Your task to perform on an android device: check android version Image 0: 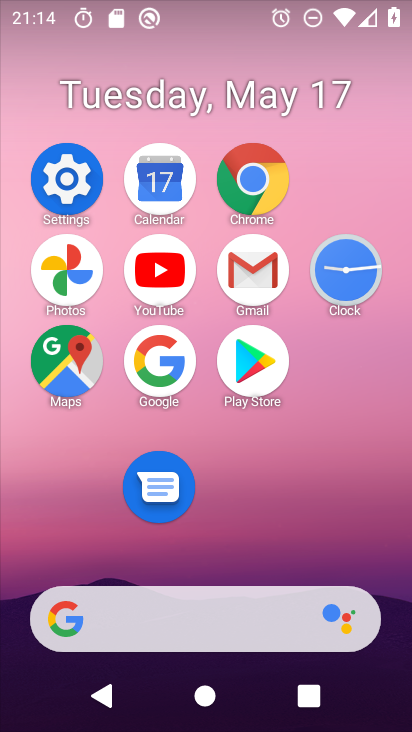
Step 0: click (54, 170)
Your task to perform on an android device: check android version Image 1: 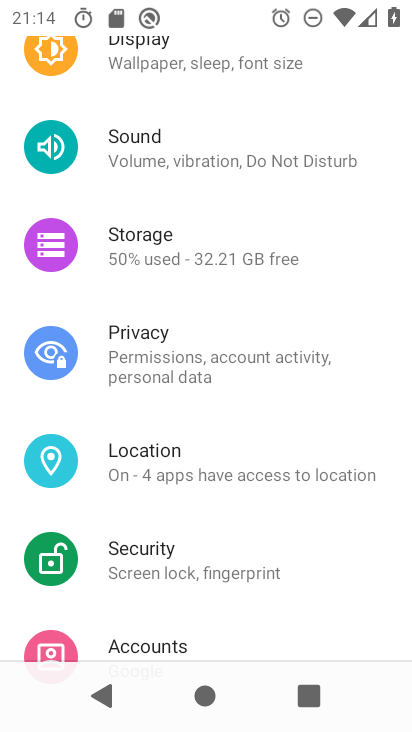
Step 1: drag from (238, 600) to (278, 43)
Your task to perform on an android device: check android version Image 2: 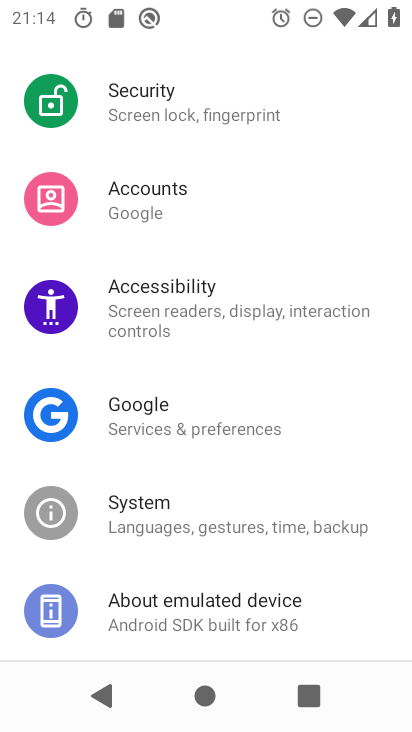
Step 2: click (222, 575)
Your task to perform on an android device: check android version Image 3: 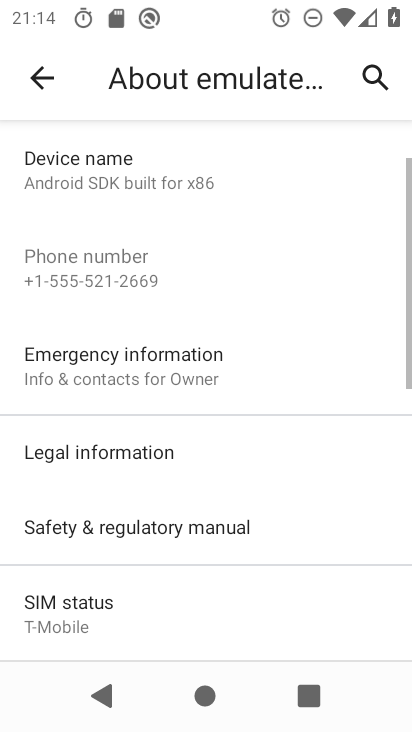
Step 3: drag from (171, 574) to (227, 125)
Your task to perform on an android device: check android version Image 4: 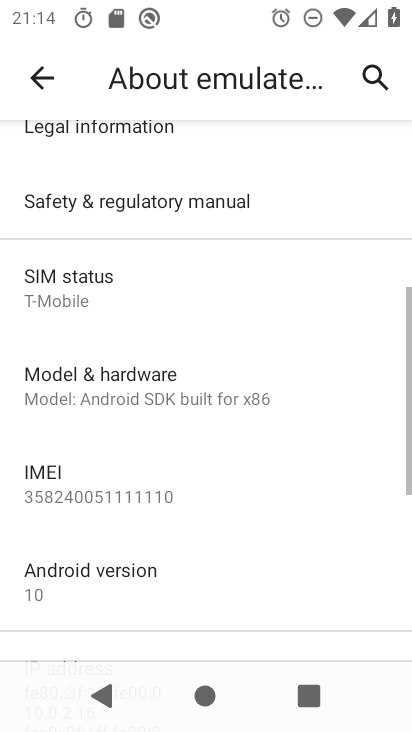
Step 4: drag from (144, 519) to (172, 214)
Your task to perform on an android device: check android version Image 5: 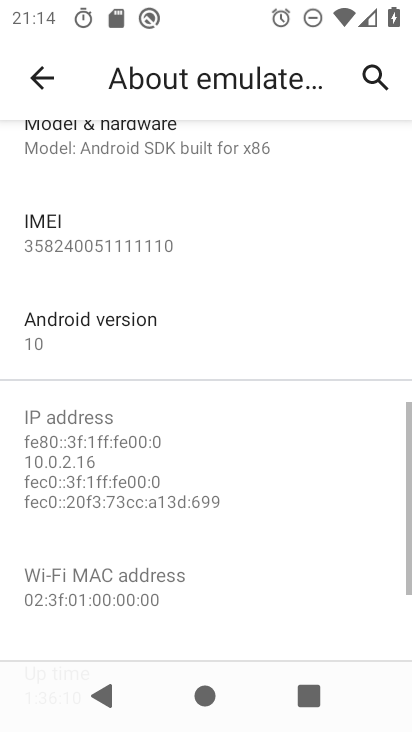
Step 5: click (154, 323)
Your task to perform on an android device: check android version Image 6: 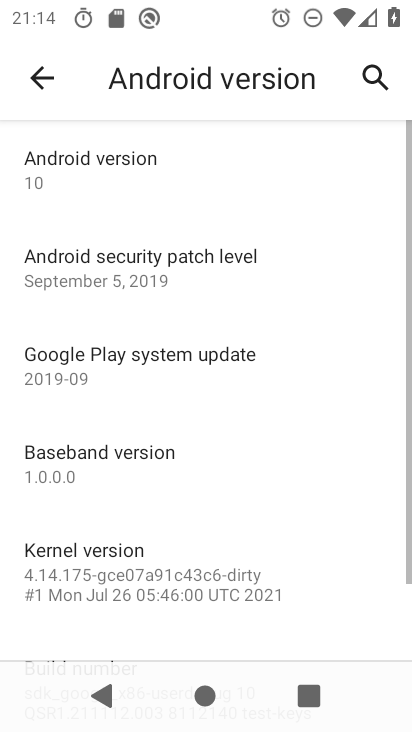
Step 6: task complete